Your task to perform on an android device: Open calendar and show me the second week of next month Image 0: 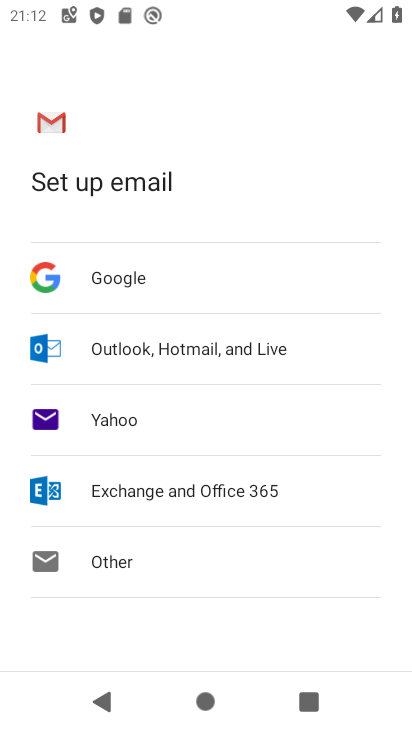
Step 0: press home button
Your task to perform on an android device: Open calendar and show me the second week of next month Image 1: 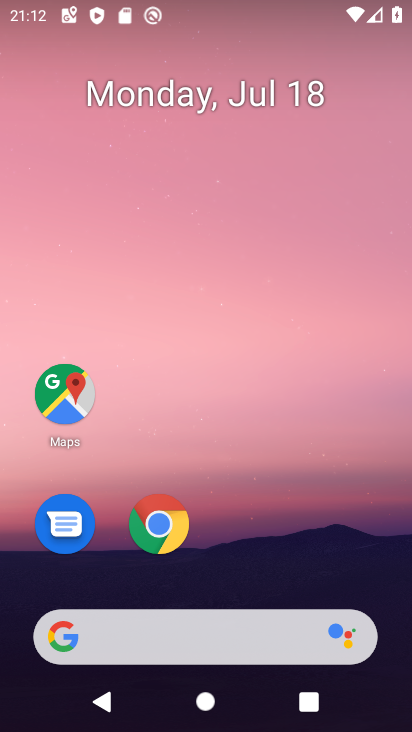
Step 1: drag from (239, 523) to (264, 29)
Your task to perform on an android device: Open calendar and show me the second week of next month Image 2: 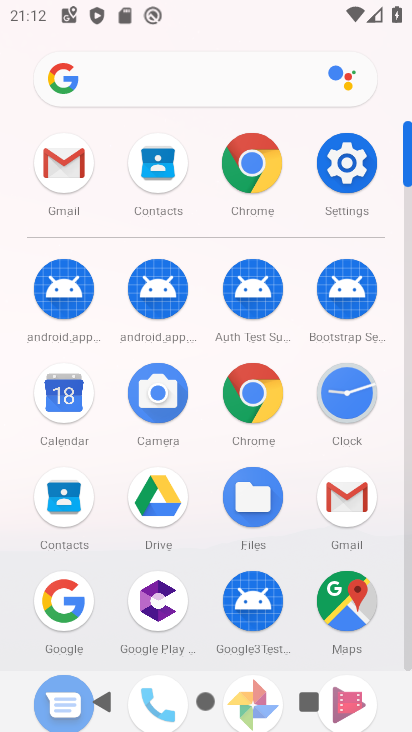
Step 2: click (61, 389)
Your task to perform on an android device: Open calendar and show me the second week of next month Image 3: 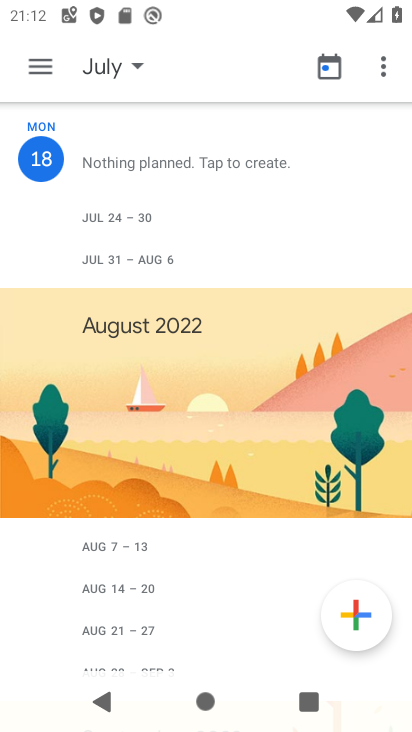
Step 3: click (46, 67)
Your task to perform on an android device: Open calendar and show me the second week of next month Image 4: 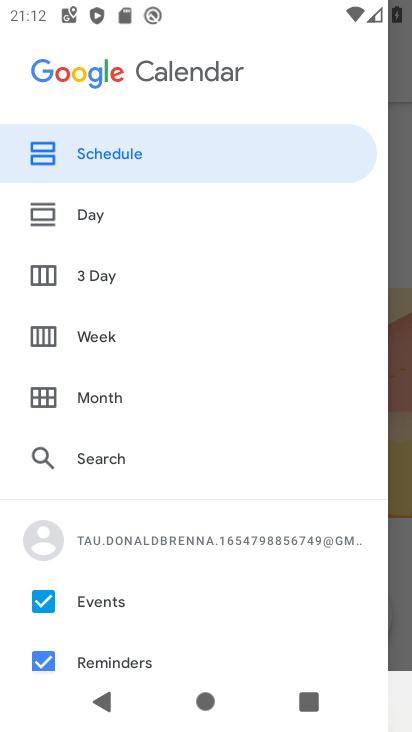
Step 4: click (43, 337)
Your task to perform on an android device: Open calendar and show me the second week of next month Image 5: 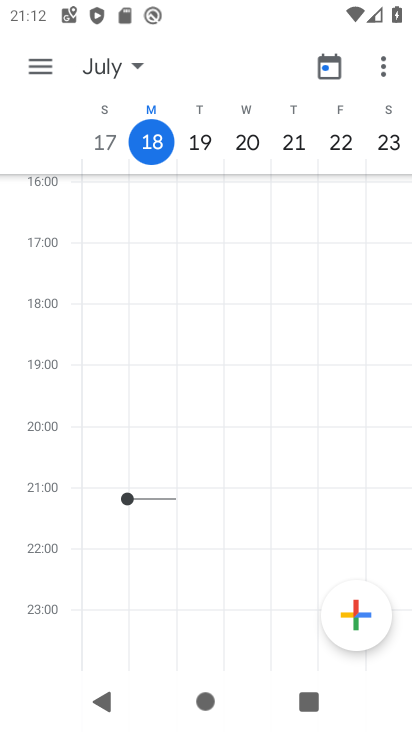
Step 5: task complete